Your task to perform on an android device: Go to Google maps Image 0: 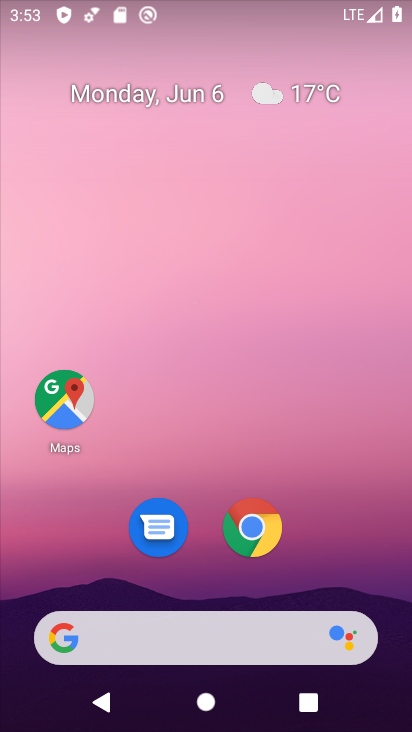
Step 0: click (72, 402)
Your task to perform on an android device: Go to Google maps Image 1: 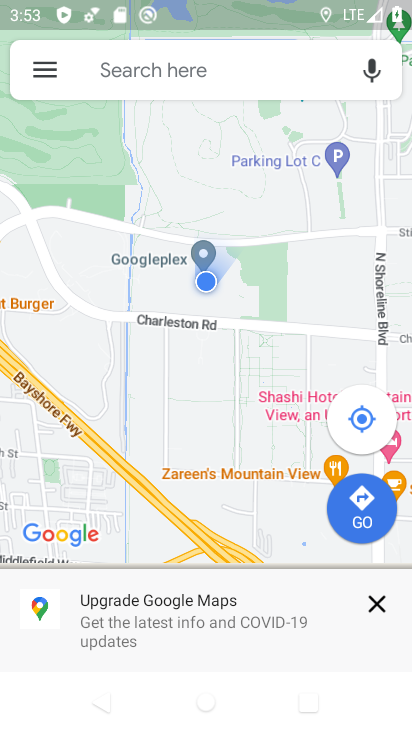
Step 1: task complete